Your task to perform on an android device: star an email in the gmail app Image 0: 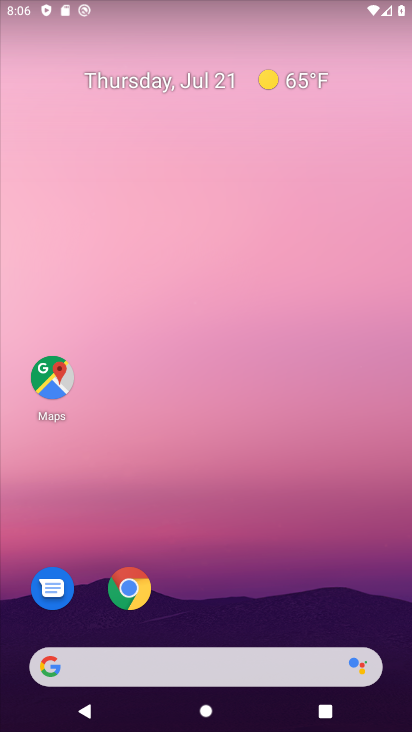
Step 0: drag from (204, 644) to (368, 68)
Your task to perform on an android device: star an email in the gmail app Image 1: 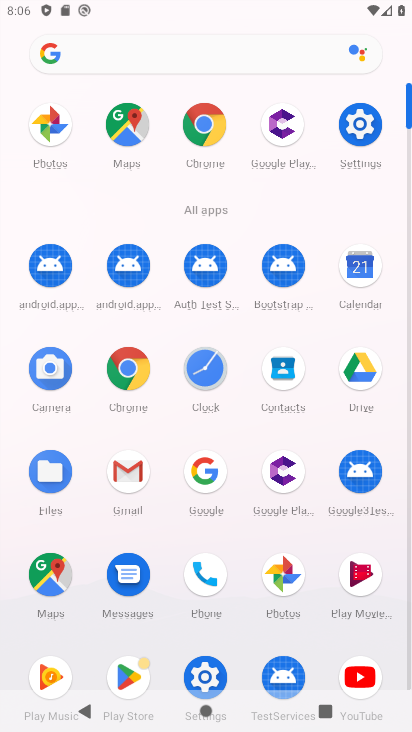
Step 1: click (139, 468)
Your task to perform on an android device: star an email in the gmail app Image 2: 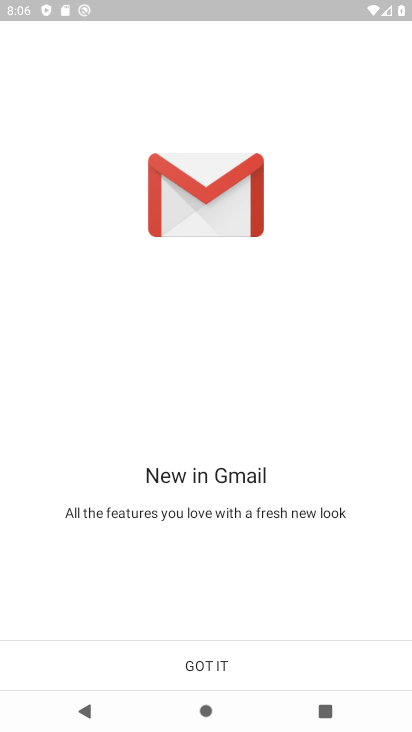
Step 2: drag from (176, 133) to (175, 478)
Your task to perform on an android device: star an email in the gmail app Image 3: 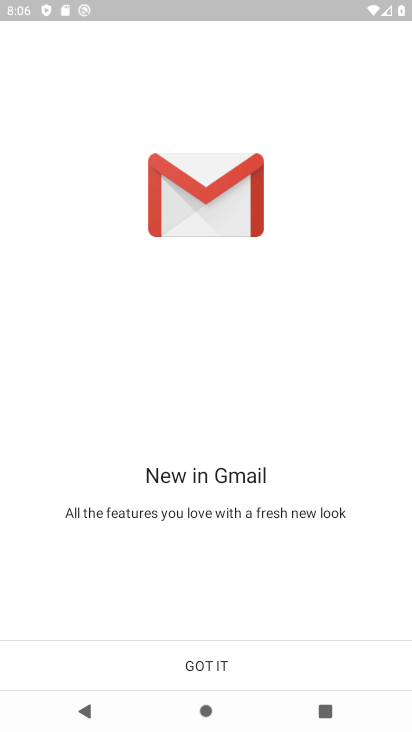
Step 3: click (218, 669)
Your task to perform on an android device: star an email in the gmail app Image 4: 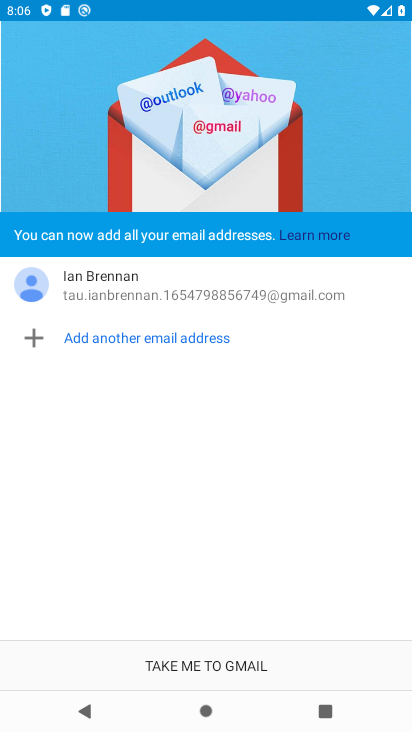
Step 4: click (190, 655)
Your task to perform on an android device: star an email in the gmail app Image 5: 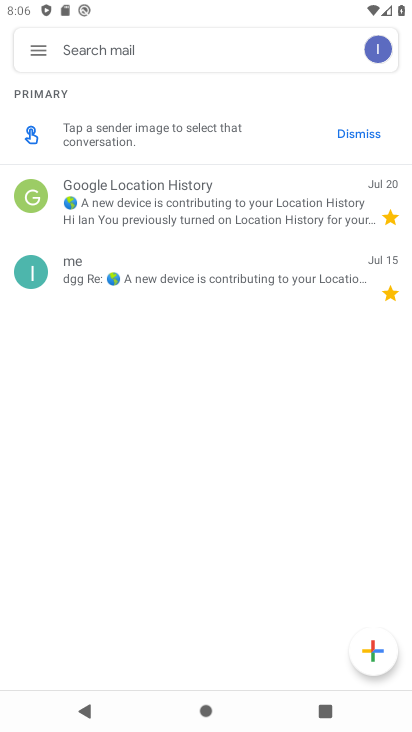
Step 5: task complete